Your task to perform on an android device: change notification settings in the gmail app Image 0: 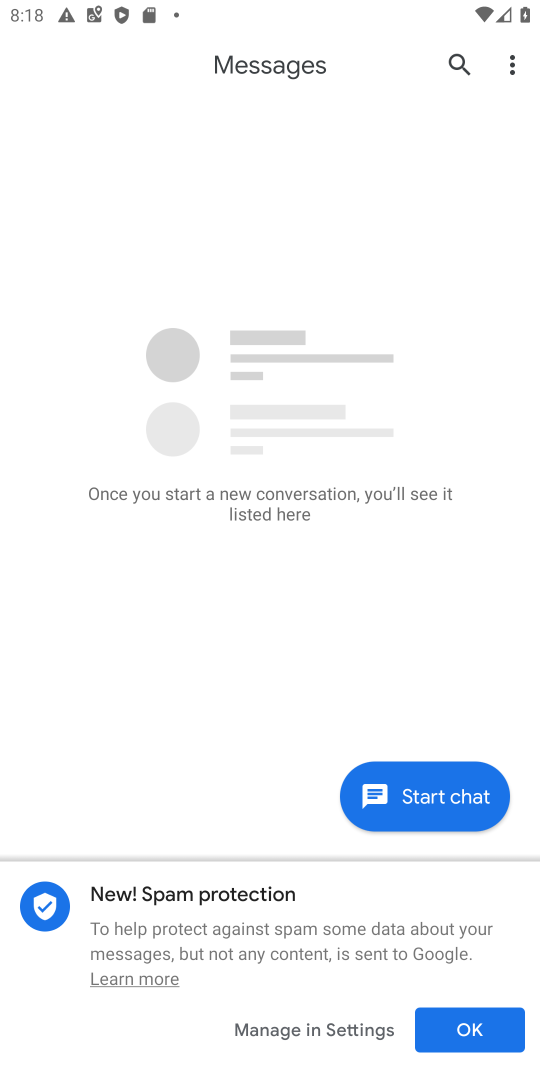
Step 0: press home button
Your task to perform on an android device: change notification settings in the gmail app Image 1: 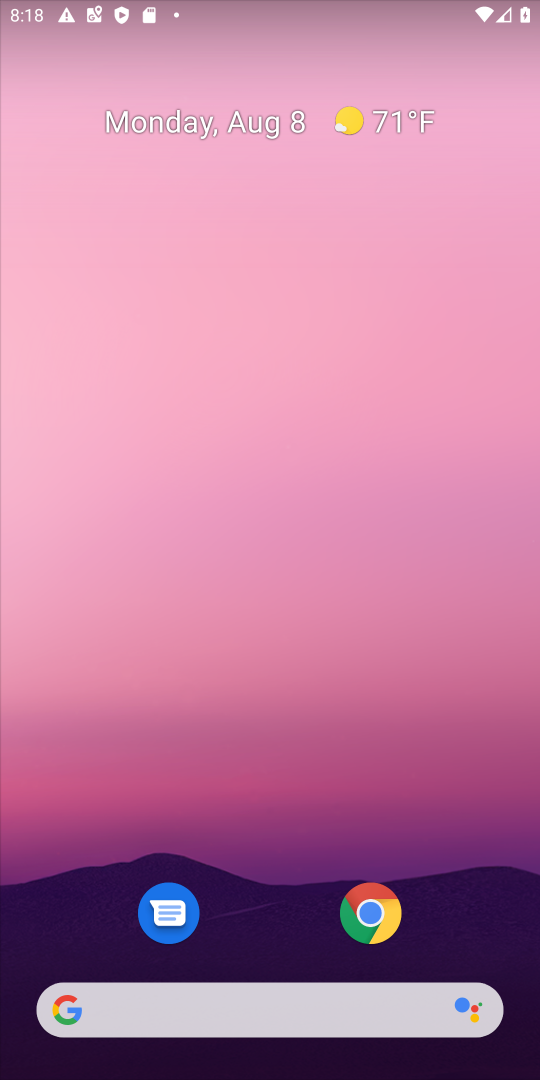
Step 1: drag from (248, 991) to (384, 263)
Your task to perform on an android device: change notification settings in the gmail app Image 2: 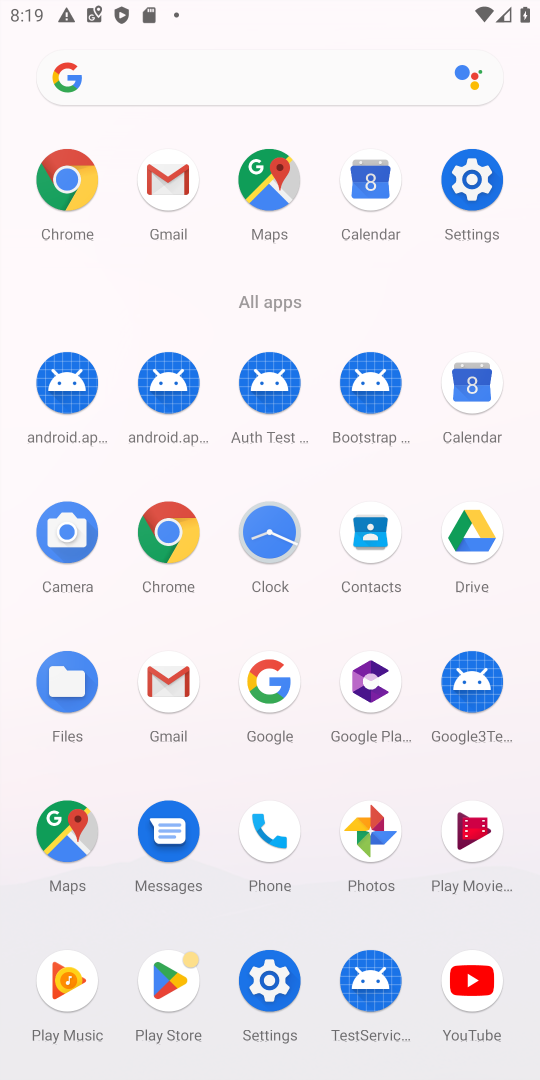
Step 2: click (169, 678)
Your task to perform on an android device: change notification settings in the gmail app Image 3: 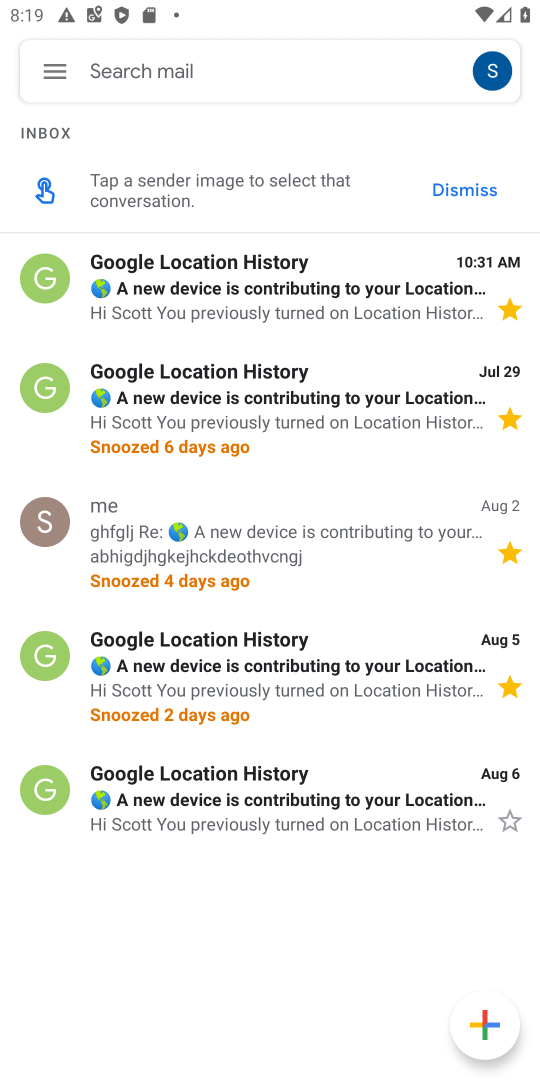
Step 3: click (52, 69)
Your task to perform on an android device: change notification settings in the gmail app Image 4: 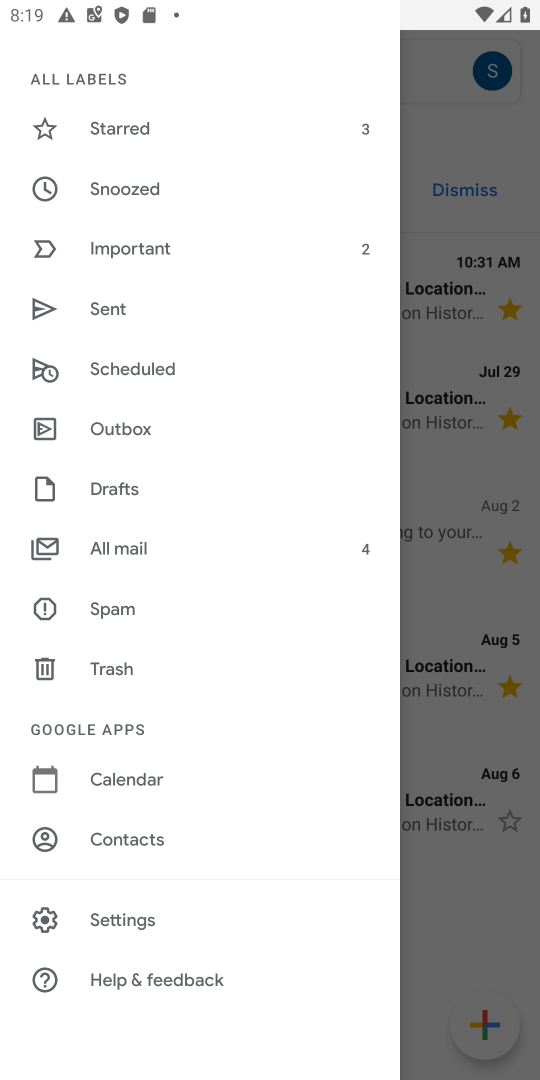
Step 4: click (132, 916)
Your task to perform on an android device: change notification settings in the gmail app Image 5: 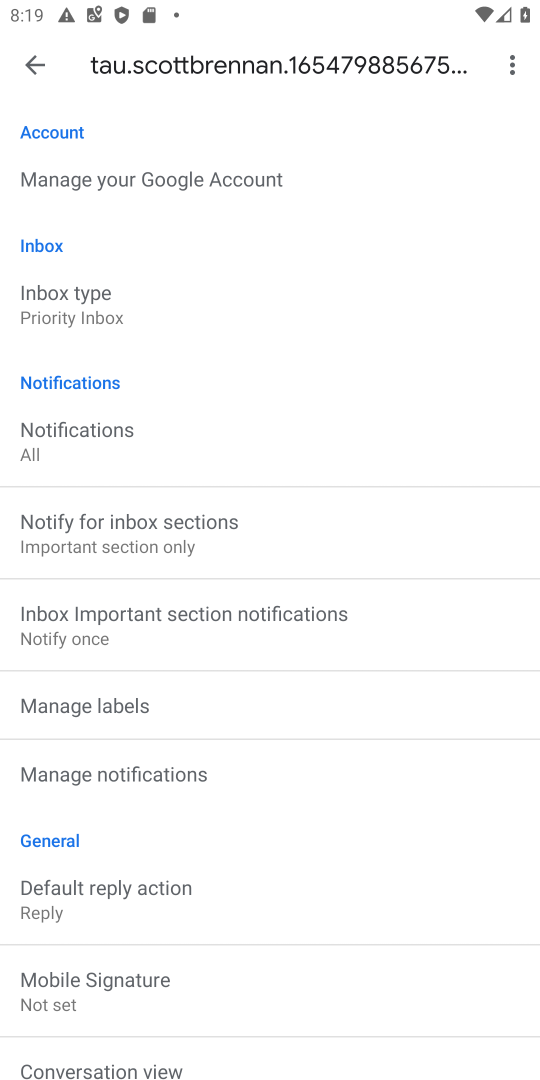
Step 5: click (107, 773)
Your task to perform on an android device: change notification settings in the gmail app Image 6: 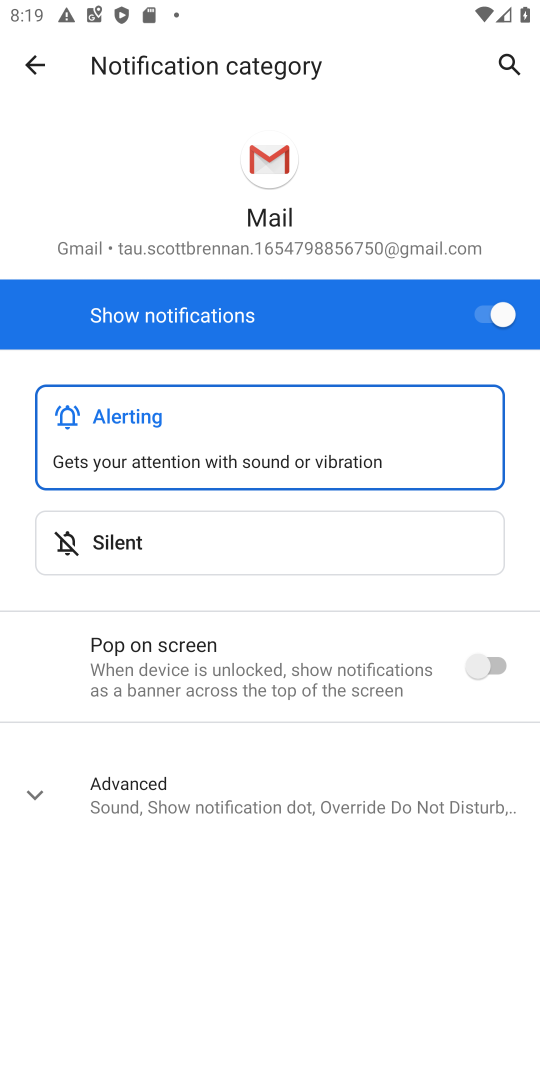
Step 6: click (487, 320)
Your task to perform on an android device: change notification settings in the gmail app Image 7: 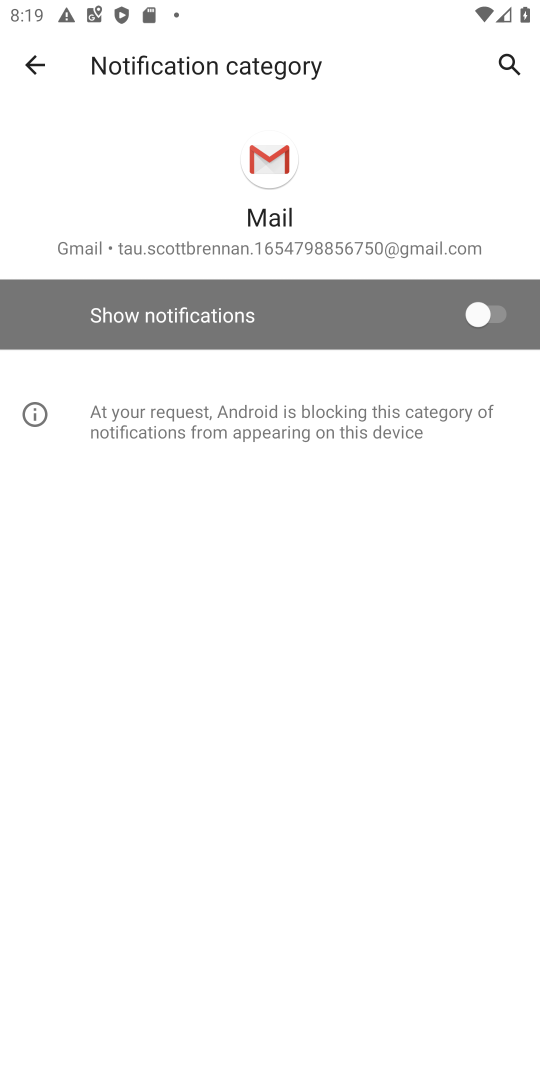
Step 7: task complete